Your task to perform on an android device: Search for "macbook air" on target.com, select the first entry, and add it to the cart. Image 0: 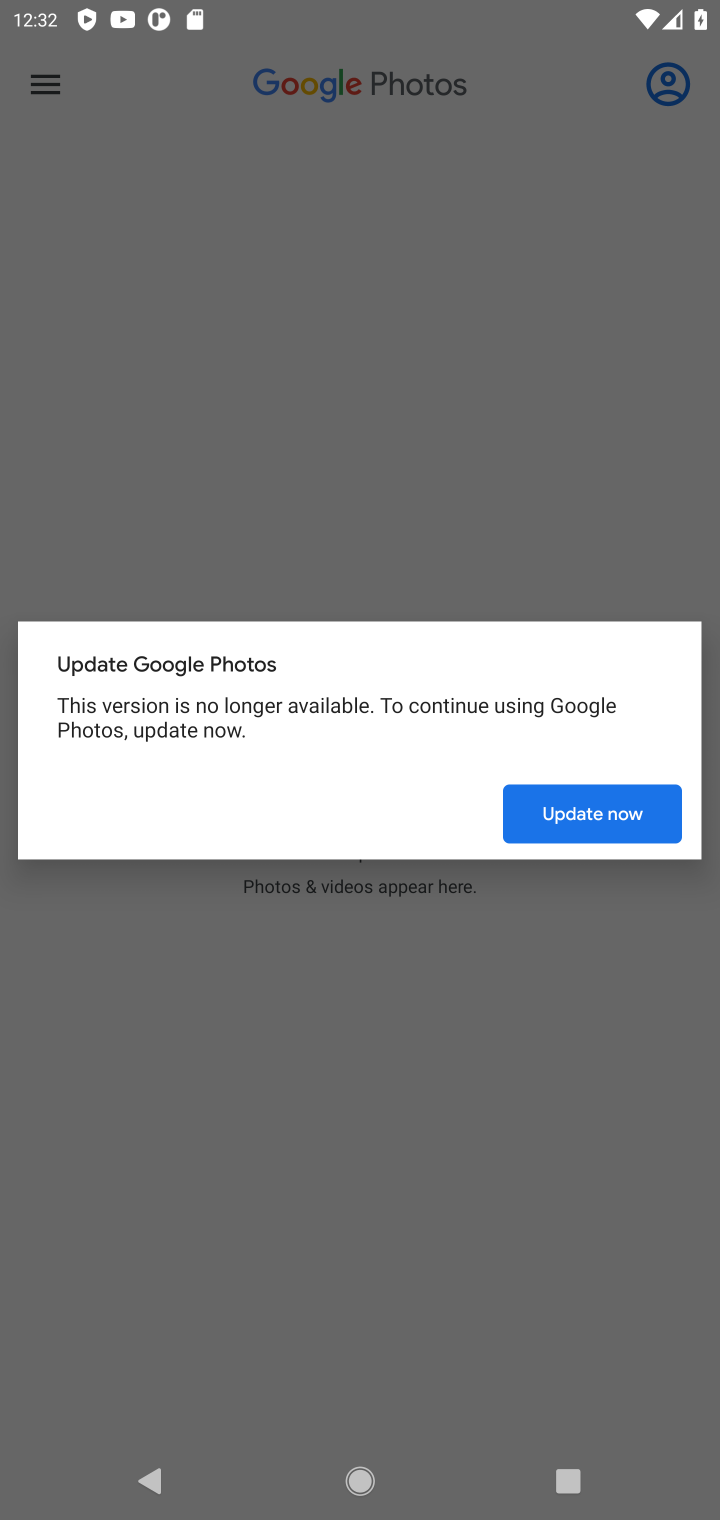
Step 0: press home button
Your task to perform on an android device: Search for "macbook air" on target.com, select the first entry, and add it to the cart. Image 1: 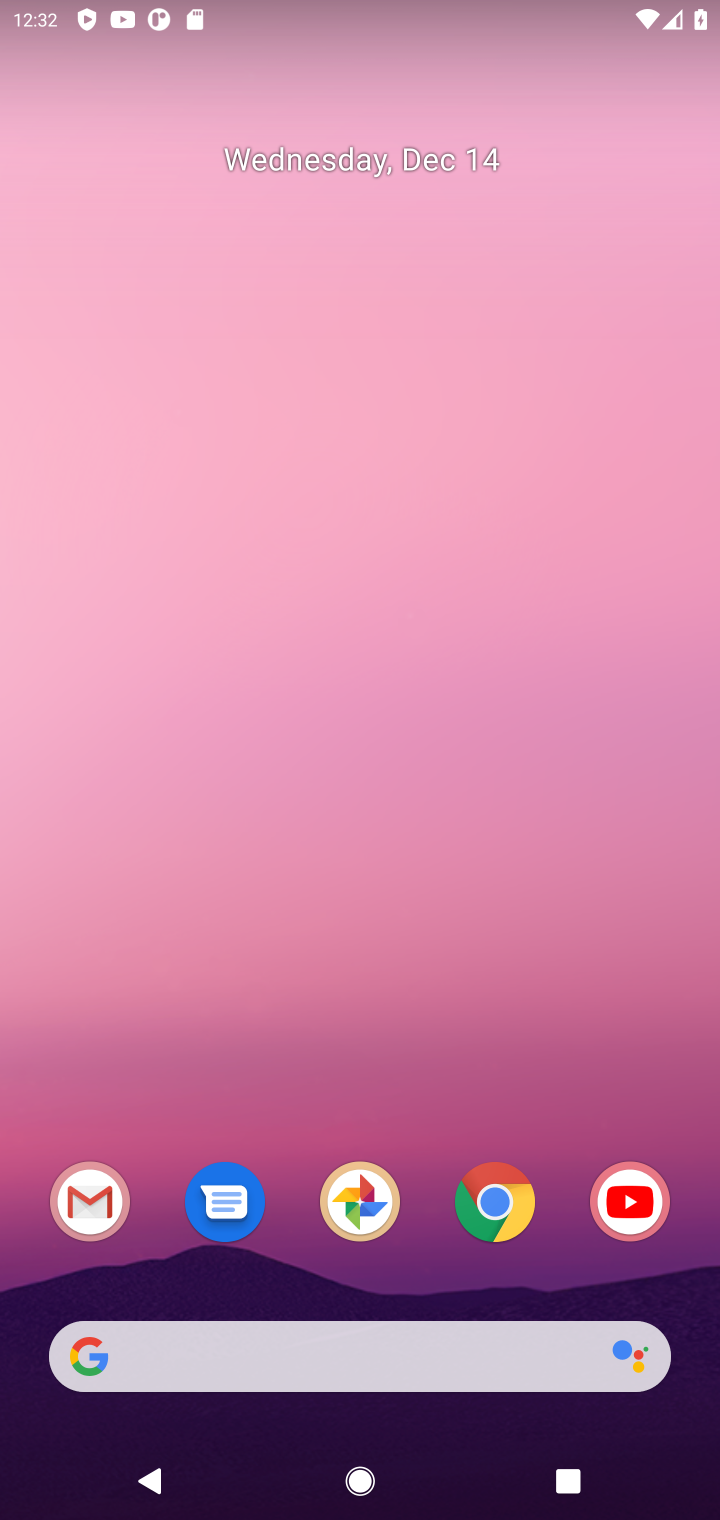
Step 1: click (493, 1195)
Your task to perform on an android device: Search for "macbook air" on target.com, select the first entry, and add it to the cart. Image 2: 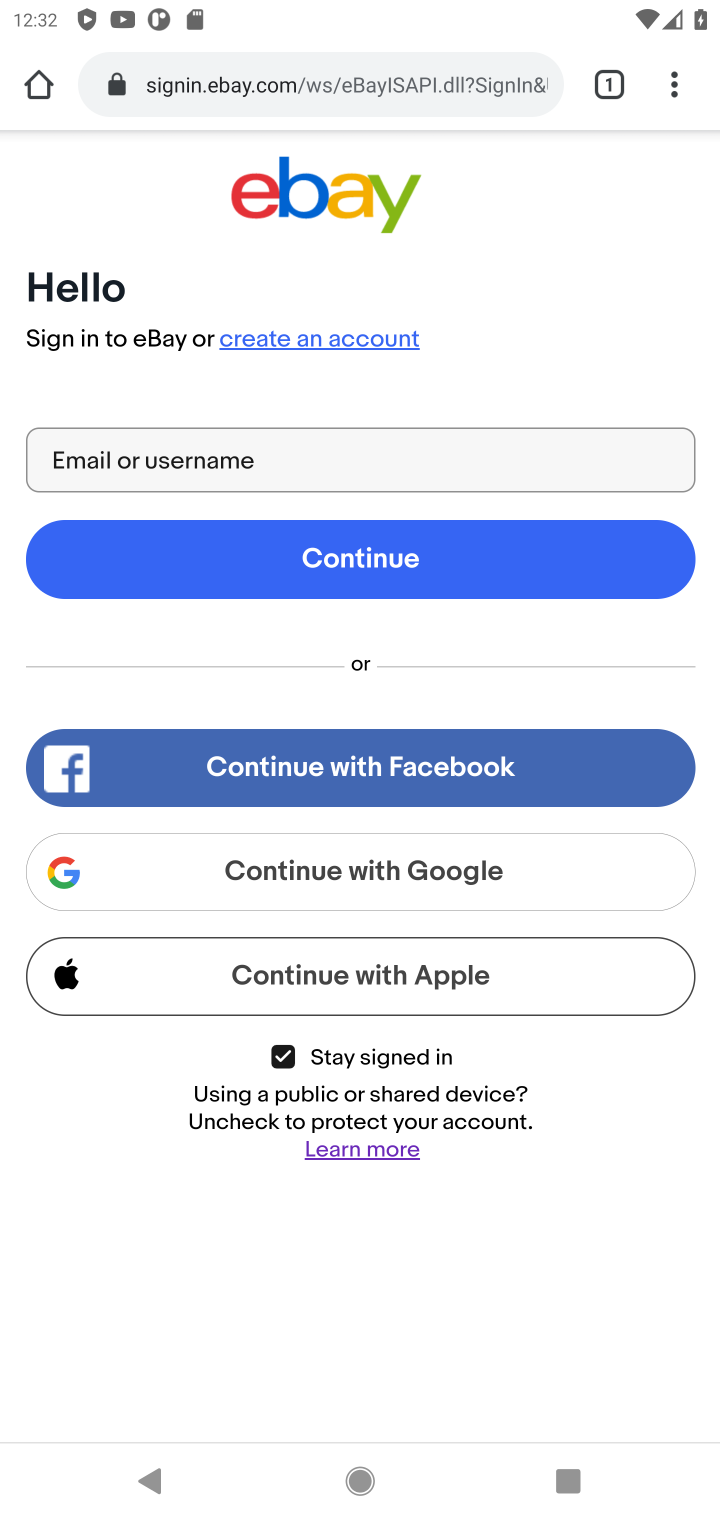
Step 2: click (289, 69)
Your task to perform on an android device: Search for "macbook air" on target.com, select the first entry, and add it to the cart. Image 3: 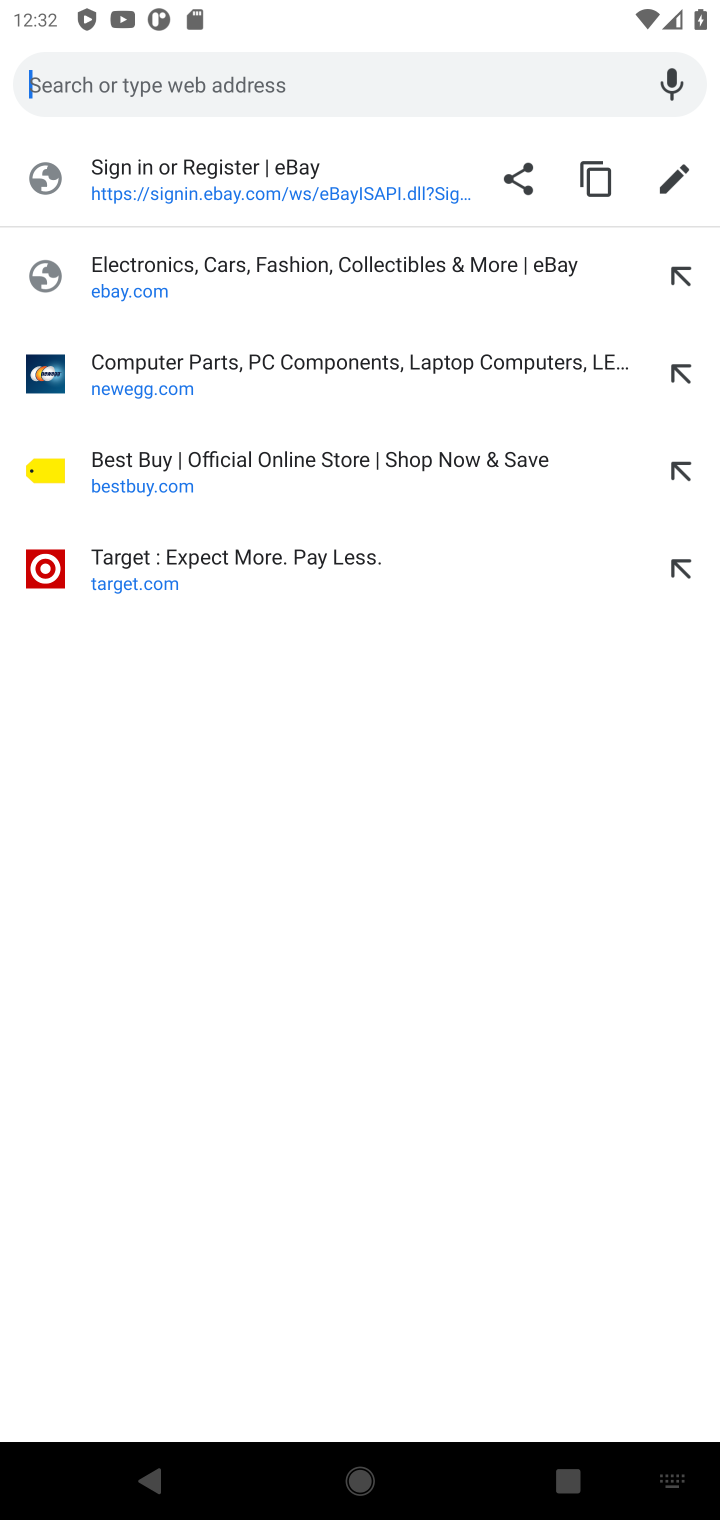
Step 3: click (189, 568)
Your task to perform on an android device: Search for "macbook air" on target.com, select the first entry, and add it to the cart. Image 4: 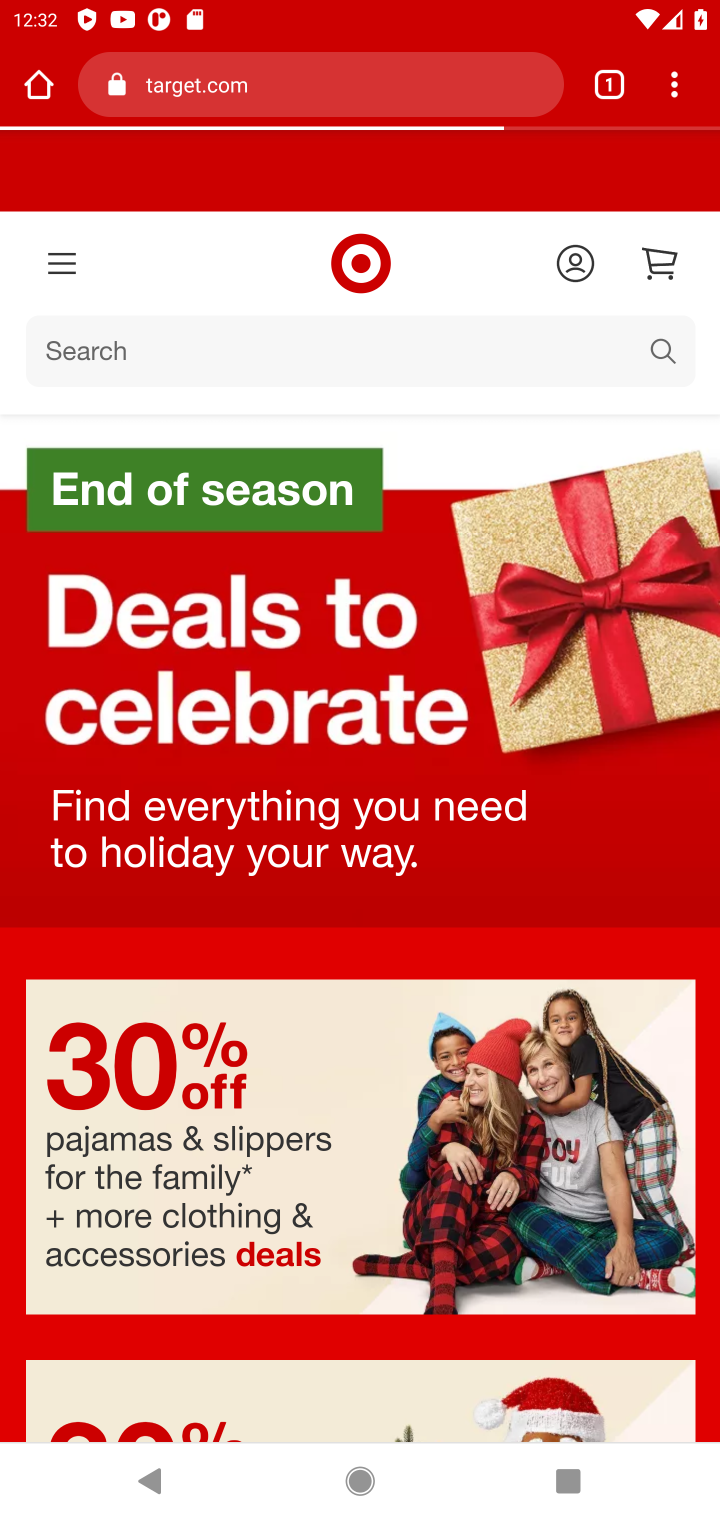
Step 4: click (390, 350)
Your task to perform on an android device: Search for "macbook air" on target.com, select the first entry, and add it to the cart. Image 5: 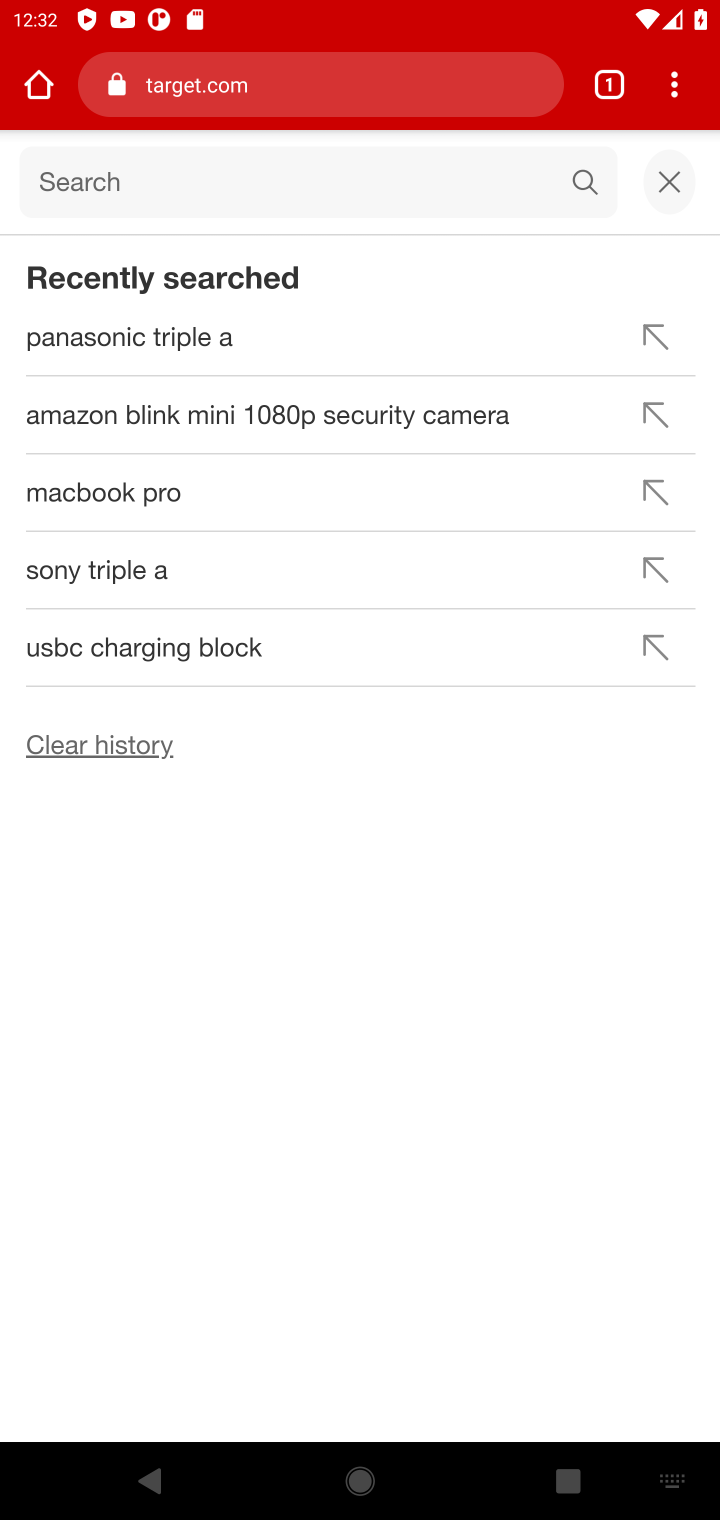
Step 5: type "macbook air"
Your task to perform on an android device: Search for "macbook air" on target.com, select the first entry, and add it to the cart. Image 6: 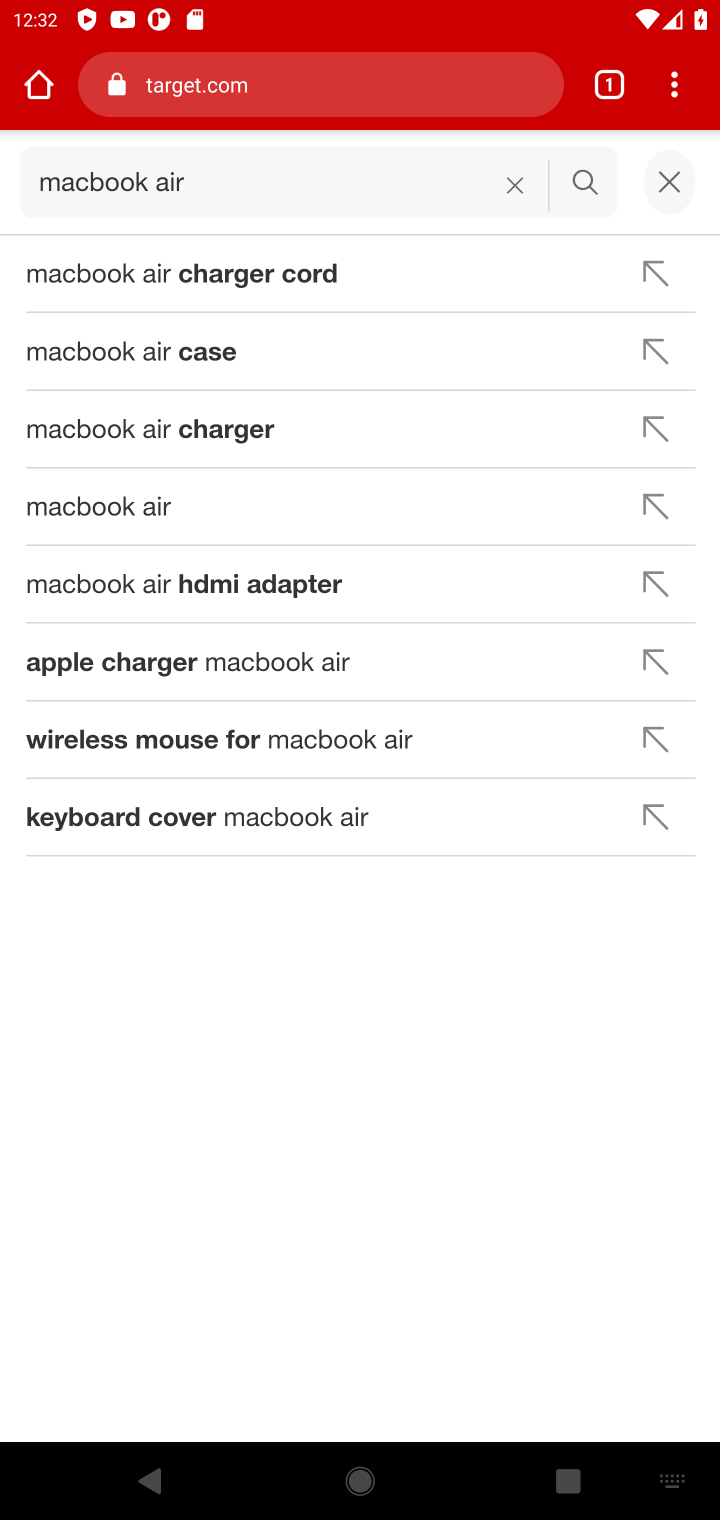
Step 6: click (232, 274)
Your task to perform on an android device: Search for "macbook air" on target.com, select the first entry, and add it to the cart. Image 7: 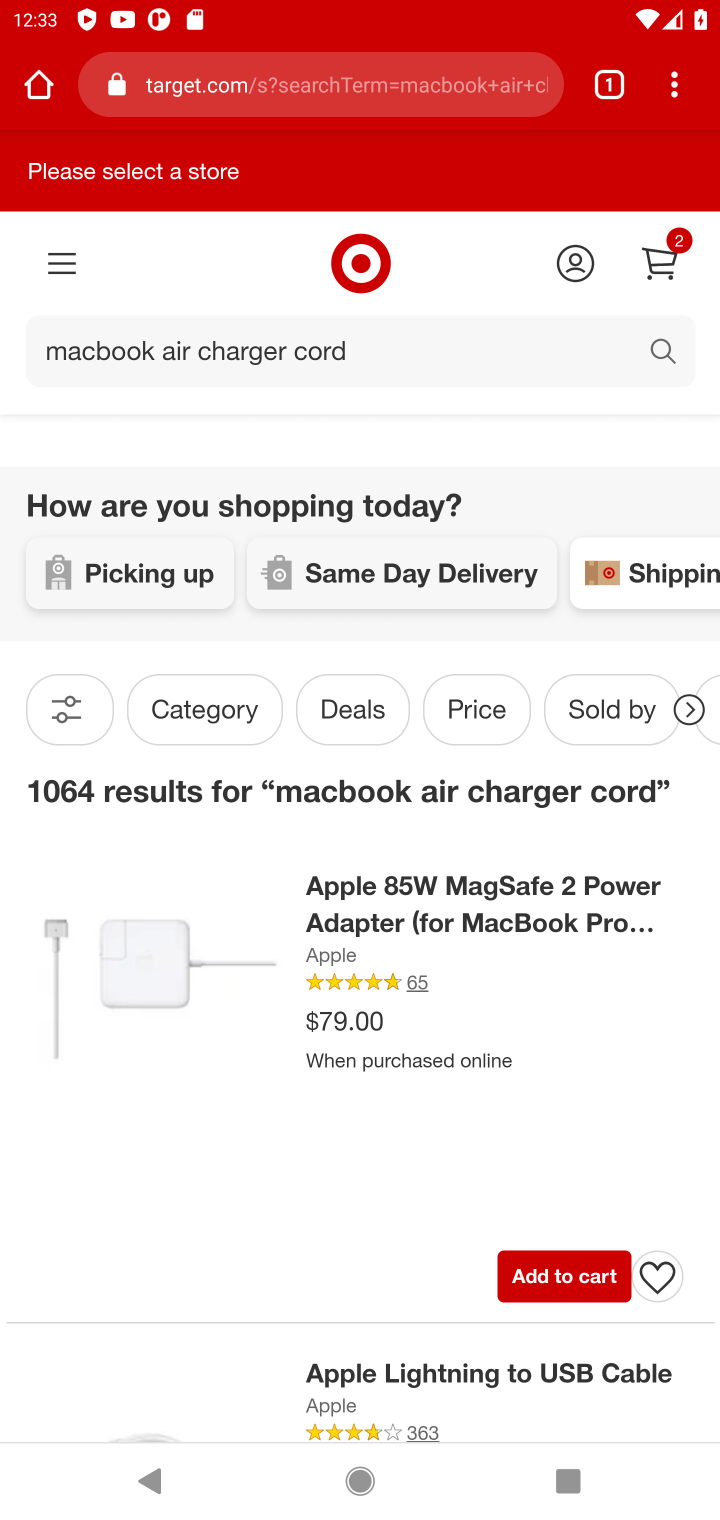
Step 7: click (552, 1274)
Your task to perform on an android device: Search for "macbook air" on target.com, select the first entry, and add it to the cart. Image 8: 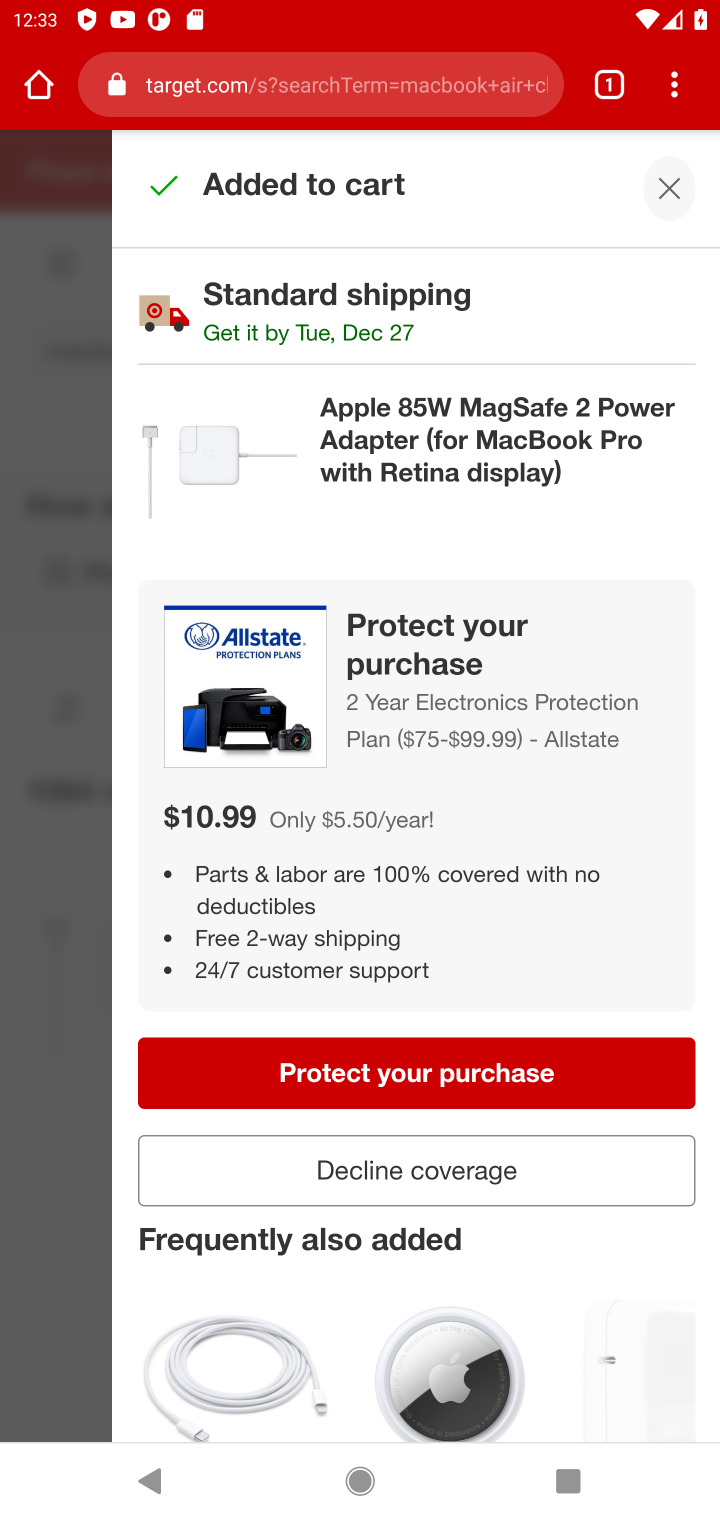
Step 8: click (433, 1172)
Your task to perform on an android device: Search for "macbook air" on target.com, select the first entry, and add it to the cart. Image 9: 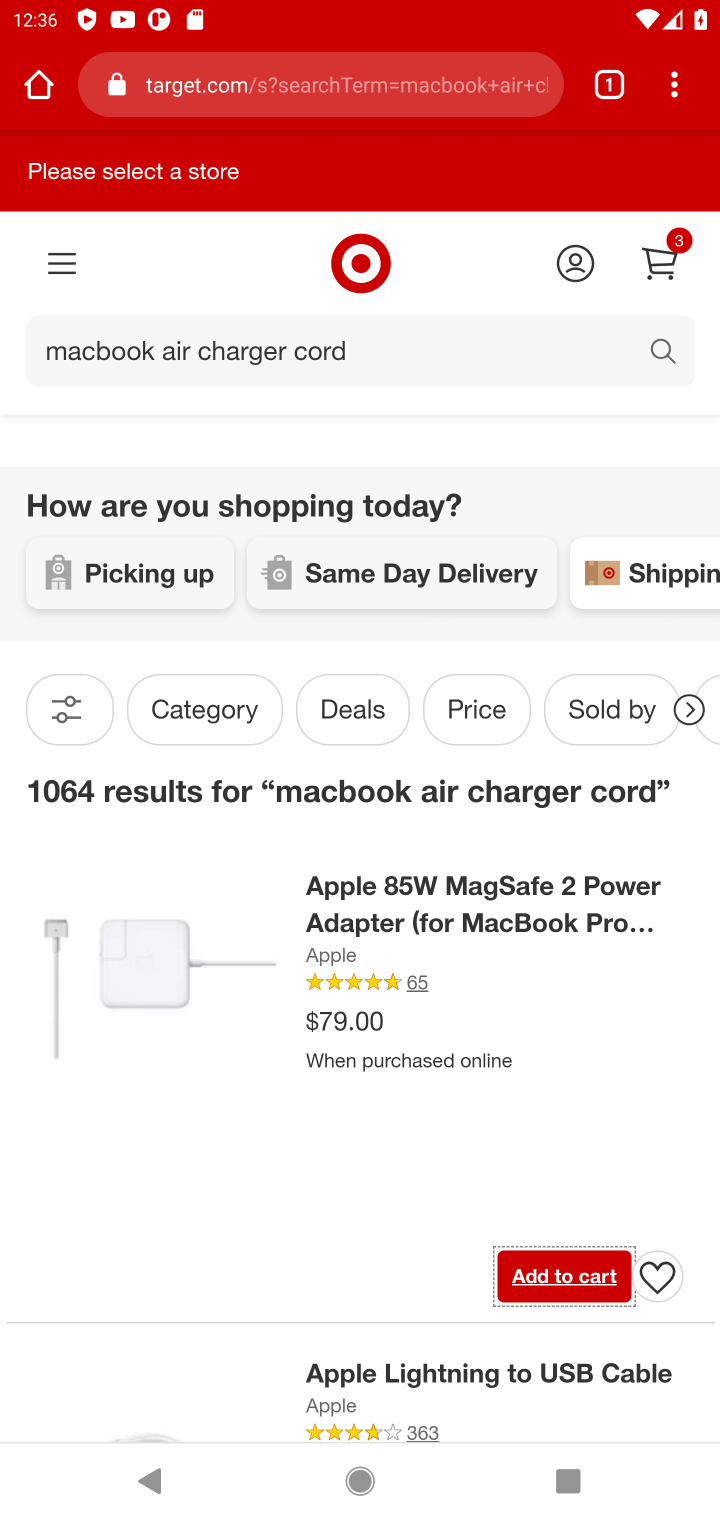
Step 9: task complete